Your task to perform on an android device: toggle show notifications on the lock screen Image 0: 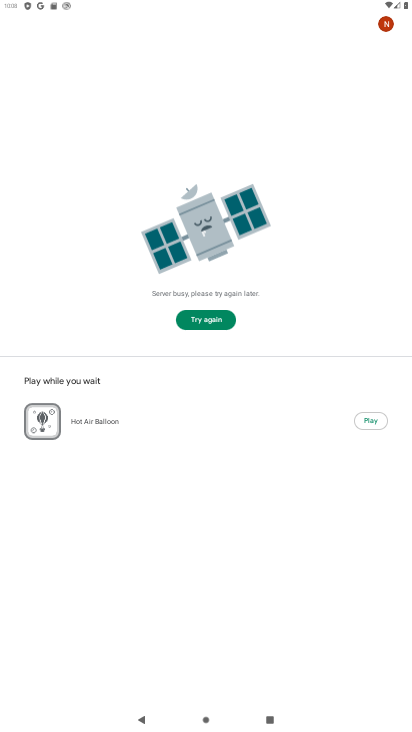
Step 0: press home button
Your task to perform on an android device: toggle show notifications on the lock screen Image 1: 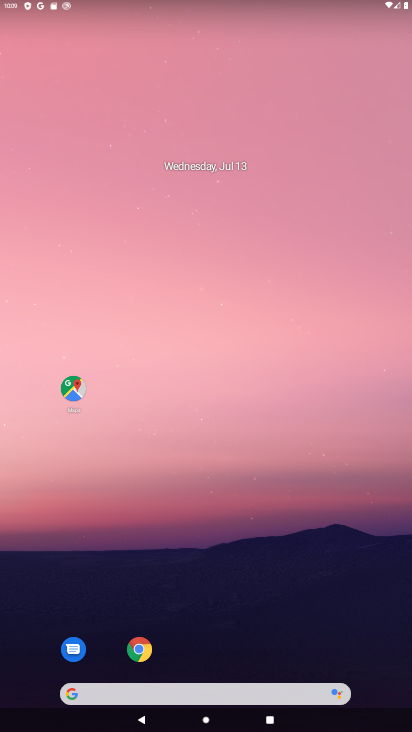
Step 1: drag from (214, 611) to (221, 298)
Your task to perform on an android device: toggle show notifications on the lock screen Image 2: 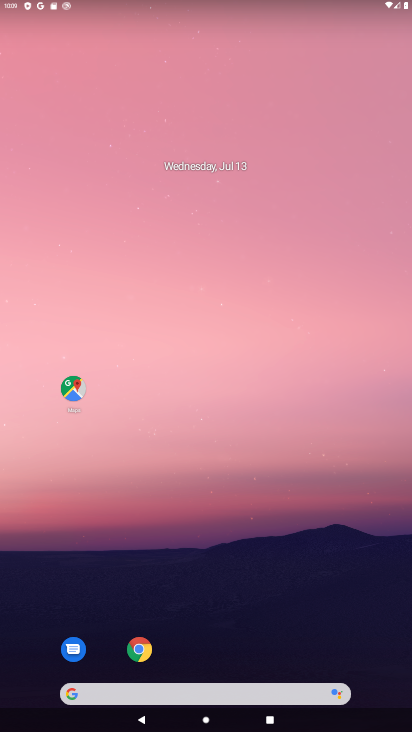
Step 2: drag from (291, 696) to (289, 288)
Your task to perform on an android device: toggle show notifications on the lock screen Image 3: 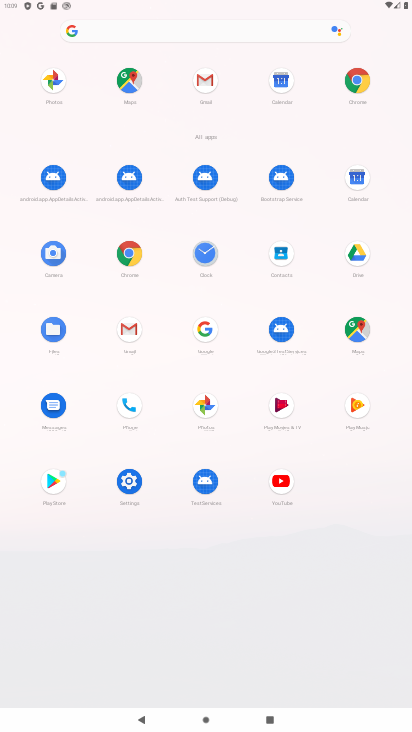
Step 3: click (131, 475)
Your task to perform on an android device: toggle show notifications on the lock screen Image 4: 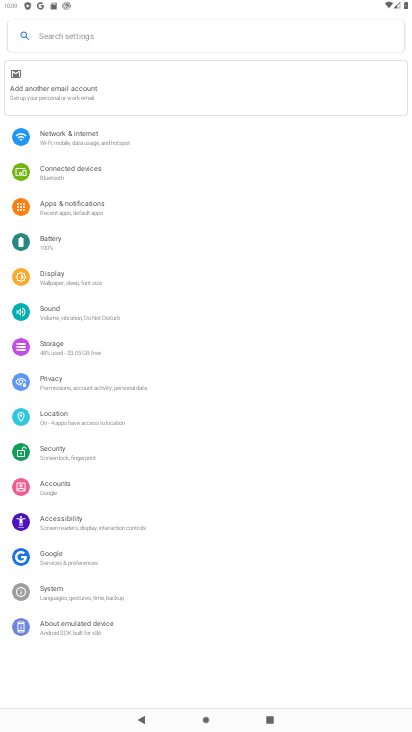
Step 4: click (92, 209)
Your task to perform on an android device: toggle show notifications on the lock screen Image 5: 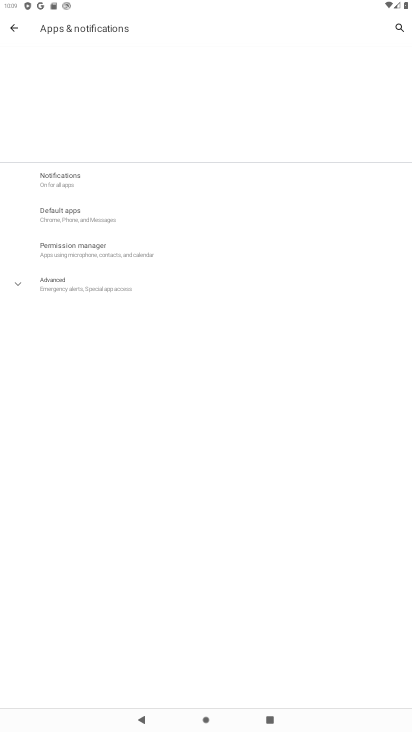
Step 5: click (115, 183)
Your task to perform on an android device: toggle show notifications on the lock screen Image 6: 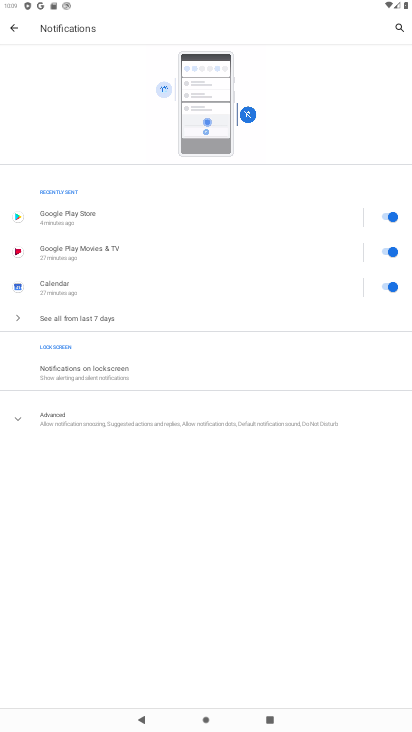
Step 6: click (155, 373)
Your task to perform on an android device: toggle show notifications on the lock screen Image 7: 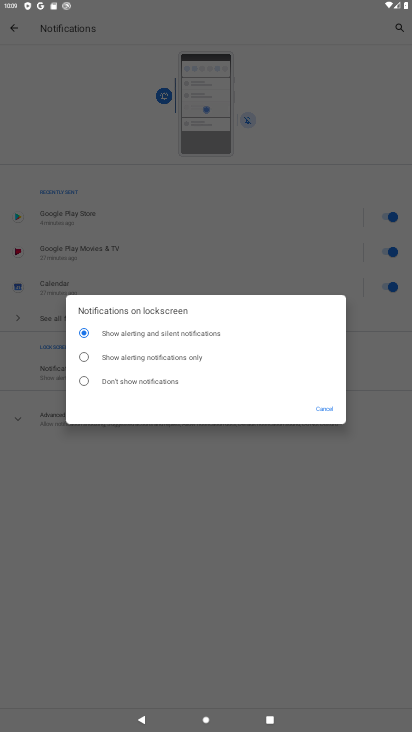
Step 7: click (127, 386)
Your task to perform on an android device: toggle show notifications on the lock screen Image 8: 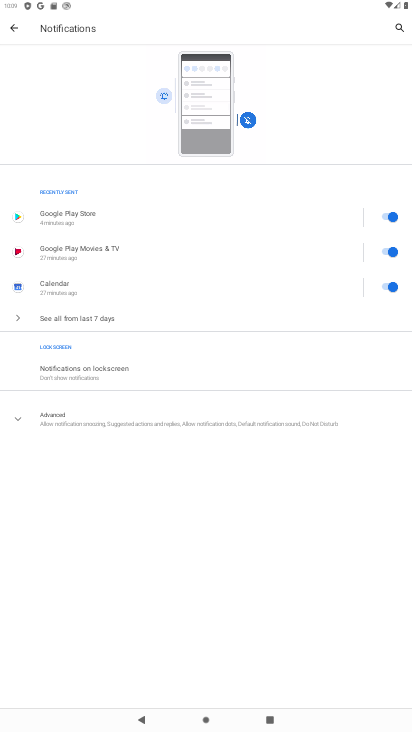
Step 8: task complete